Your task to perform on an android device: Open CNN.com Image 0: 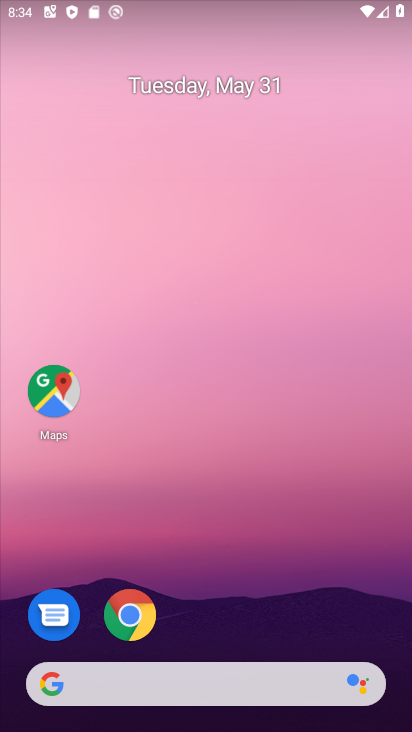
Step 0: click (127, 612)
Your task to perform on an android device: Open CNN.com Image 1: 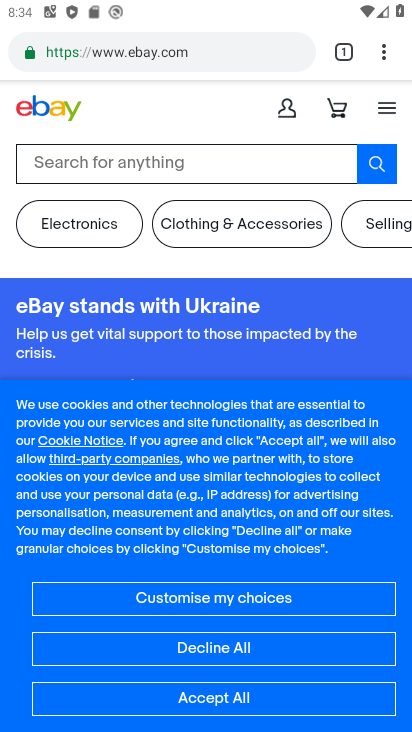
Step 1: click (272, 46)
Your task to perform on an android device: Open CNN.com Image 2: 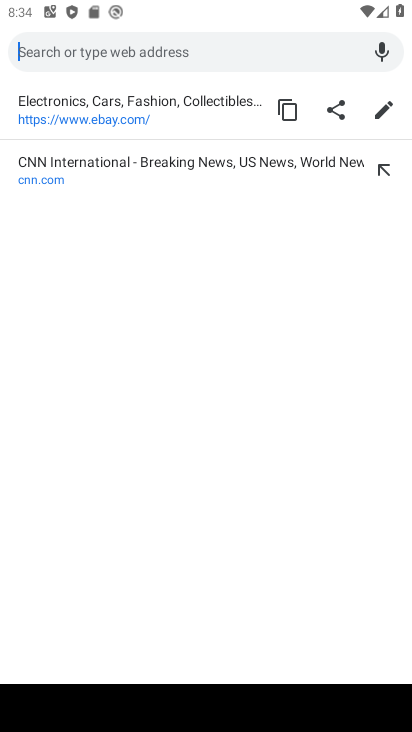
Step 2: type "cnn.com"
Your task to perform on an android device: Open CNN.com Image 3: 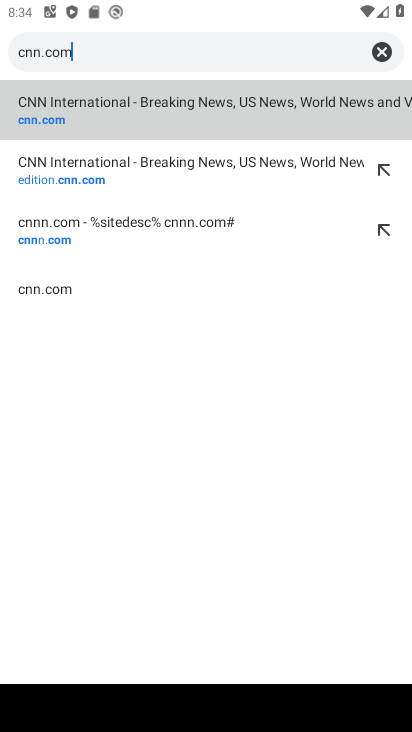
Step 3: click (44, 106)
Your task to perform on an android device: Open CNN.com Image 4: 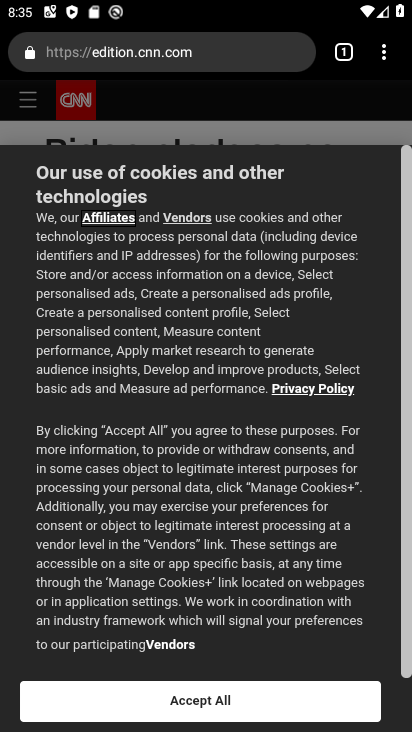
Step 4: click (211, 702)
Your task to perform on an android device: Open CNN.com Image 5: 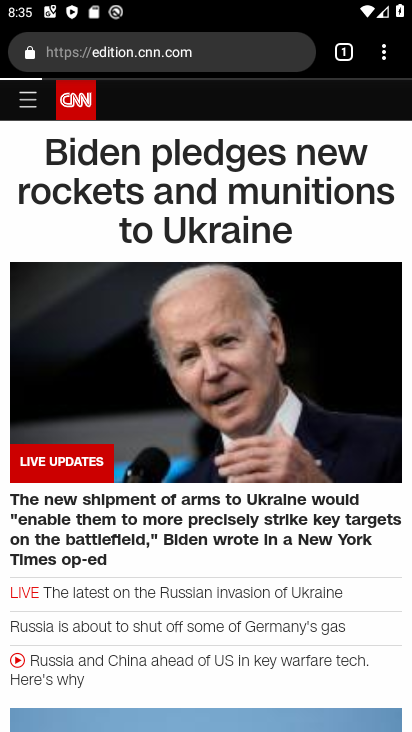
Step 5: task complete